Your task to perform on an android device: What's the weather going to be this weekend? Image 0: 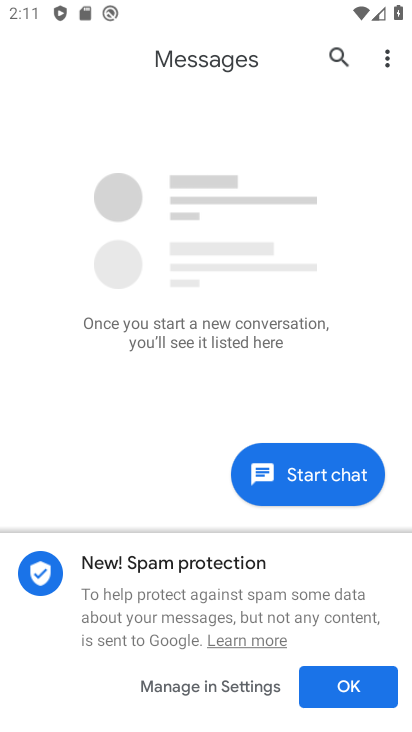
Step 0: press home button
Your task to perform on an android device: What's the weather going to be this weekend? Image 1: 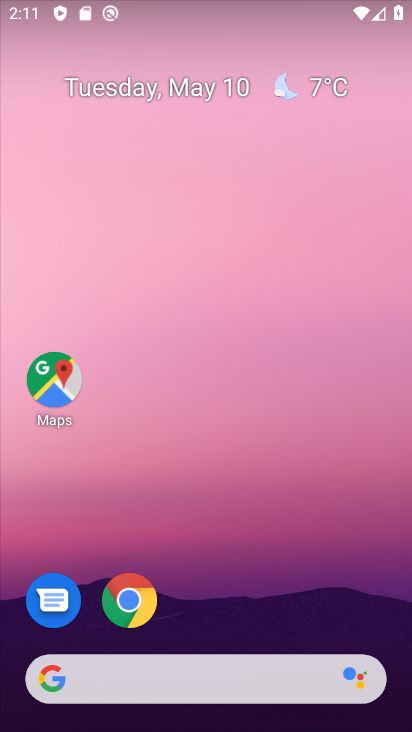
Step 1: click (325, 73)
Your task to perform on an android device: What's the weather going to be this weekend? Image 2: 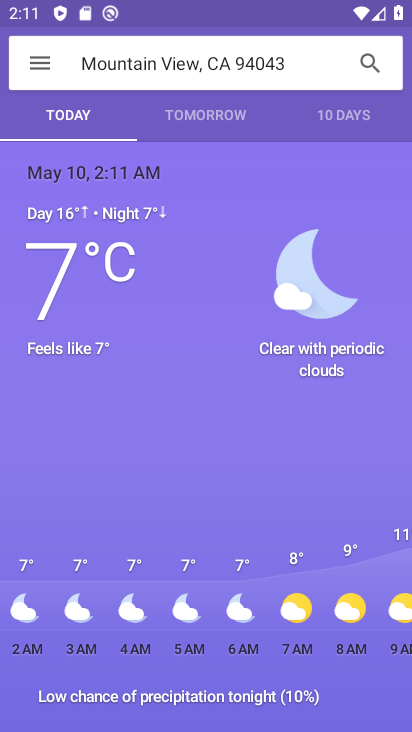
Step 2: click (348, 108)
Your task to perform on an android device: What's the weather going to be this weekend? Image 3: 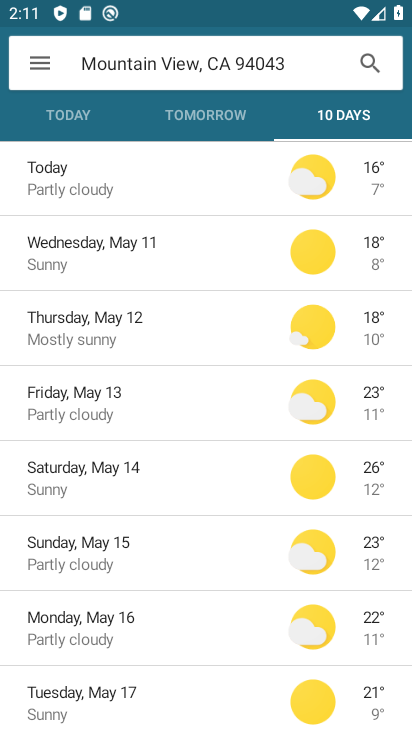
Step 3: task complete